Your task to perform on an android device: Open the stopwatch Image 0: 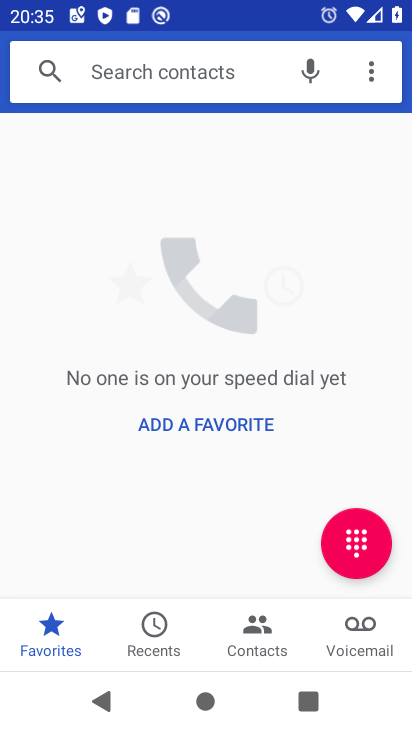
Step 0: press home button
Your task to perform on an android device: Open the stopwatch Image 1: 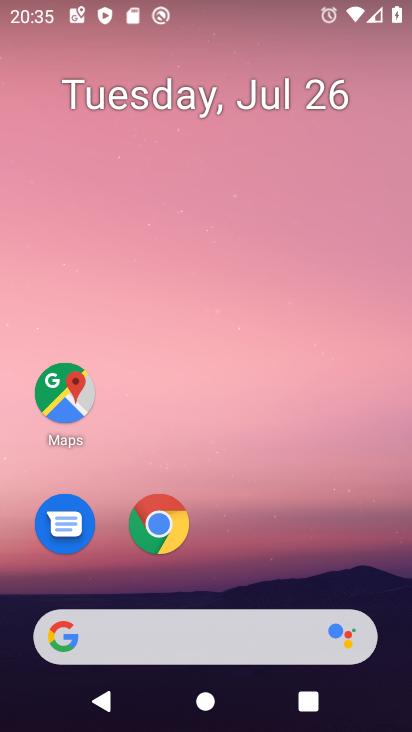
Step 1: drag from (299, 538) to (260, 0)
Your task to perform on an android device: Open the stopwatch Image 2: 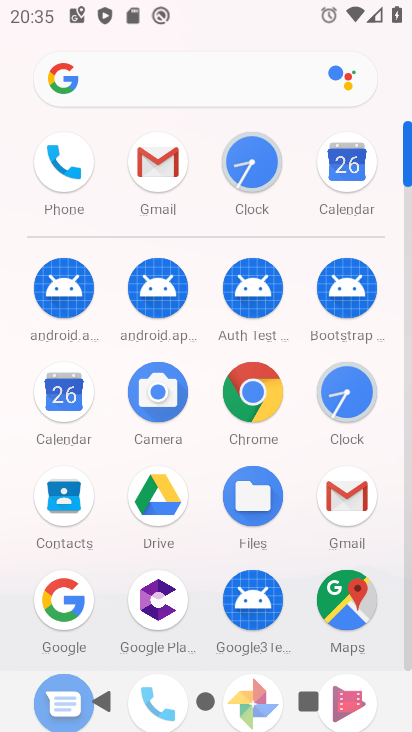
Step 2: click (250, 162)
Your task to perform on an android device: Open the stopwatch Image 3: 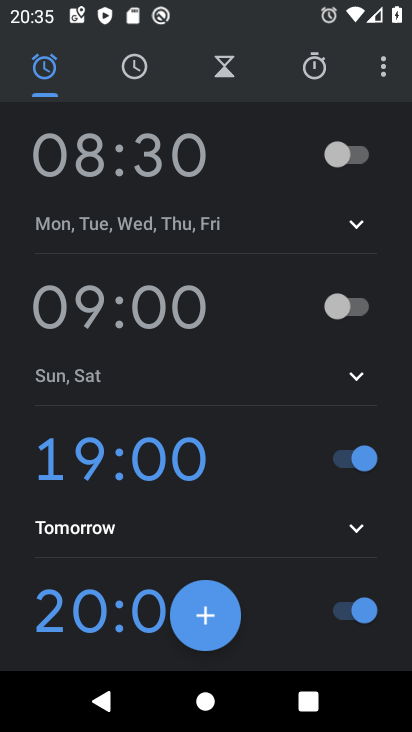
Step 3: click (304, 75)
Your task to perform on an android device: Open the stopwatch Image 4: 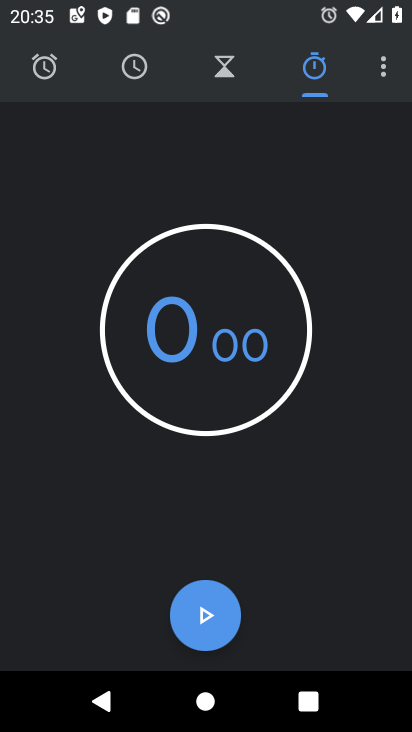
Step 4: task complete